Your task to perform on an android device: Open the calendar and show me this week's events? Image 0: 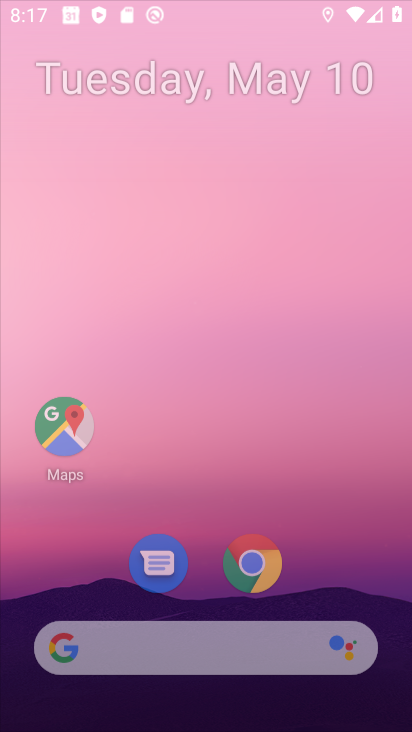
Step 0: click (334, 126)
Your task to perform on an android device: Open the calendar and show me this week's events? Image 1: 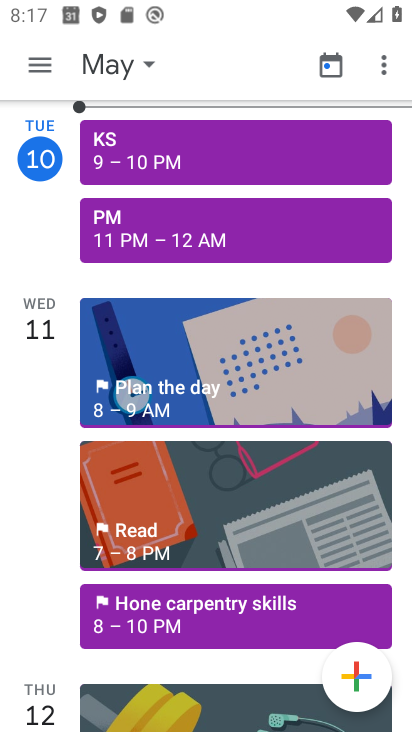
Step 1: click (113, 62)
Your task to perform on an android device: Open the calendar and show me this week's events? Image 2: 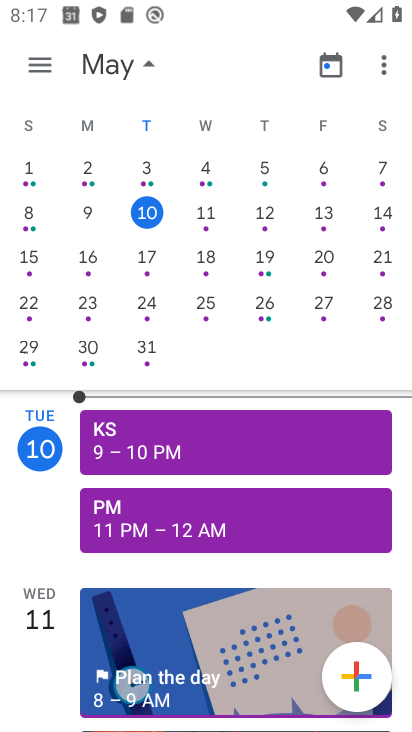
Step 2: click (206, 222)
Your task to perform on an android device: Open the calendar and show me this week's events? Image 3: 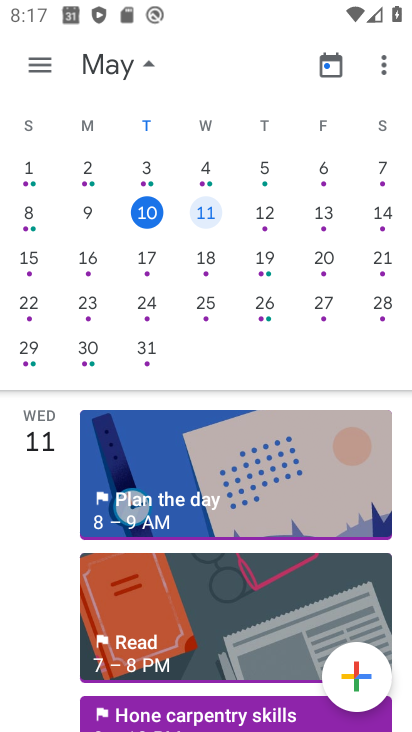
Step 3: task complete